Your task to perform on an android device: open app "Facebook Lite" (install if not already installed) Image 0: 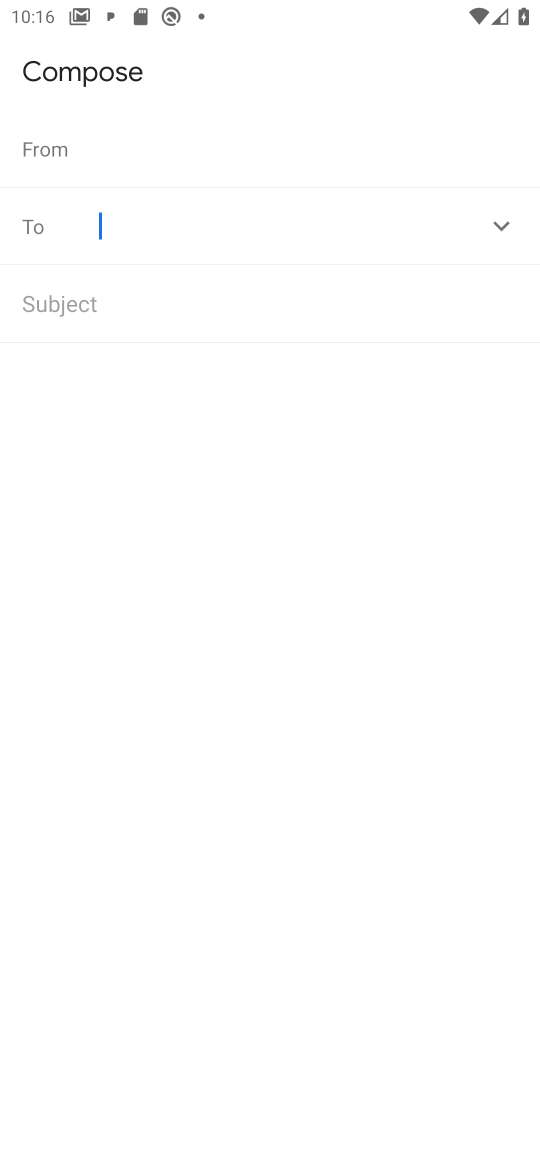
Step 0: press home button
Your task to perform on an android device: open app "Facebook Lite" (install if not already installed) Image 1: 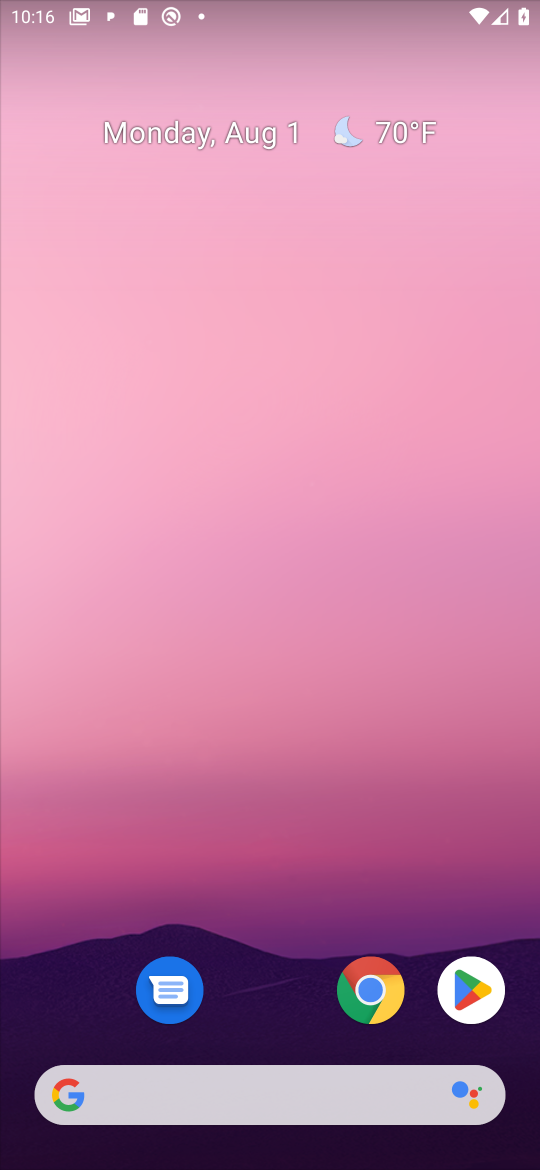
Step 1: click (473, 989)
Your task to perform on an android device: open app "Facebook Lite" (install if not already installed) Image 2: 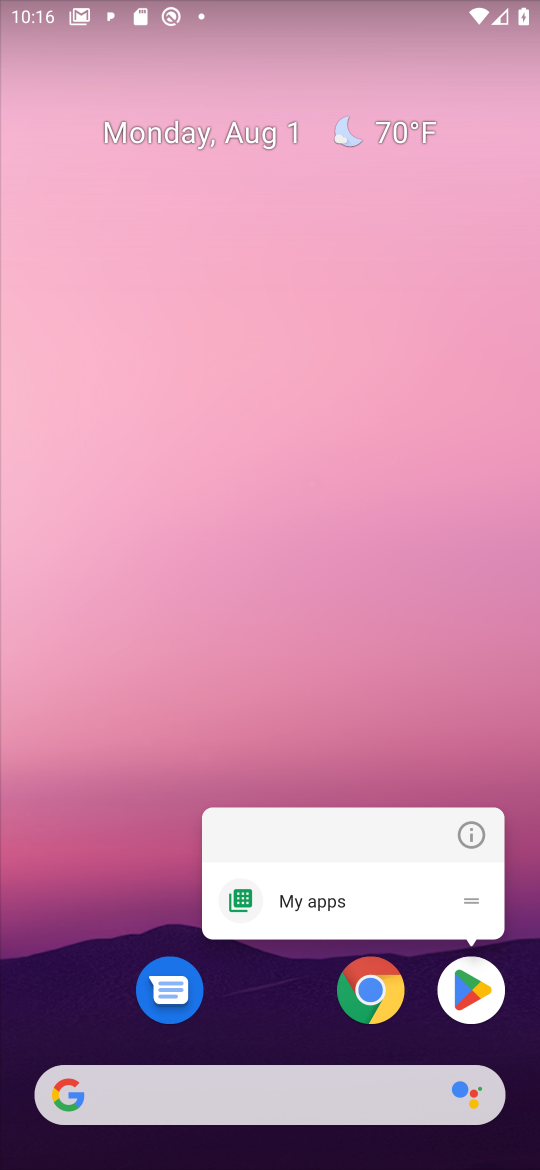
Step 2: click (473, 989)
Your task to perform on an android device: open app "Facebook Lite" (install if not already installed) Image 3: 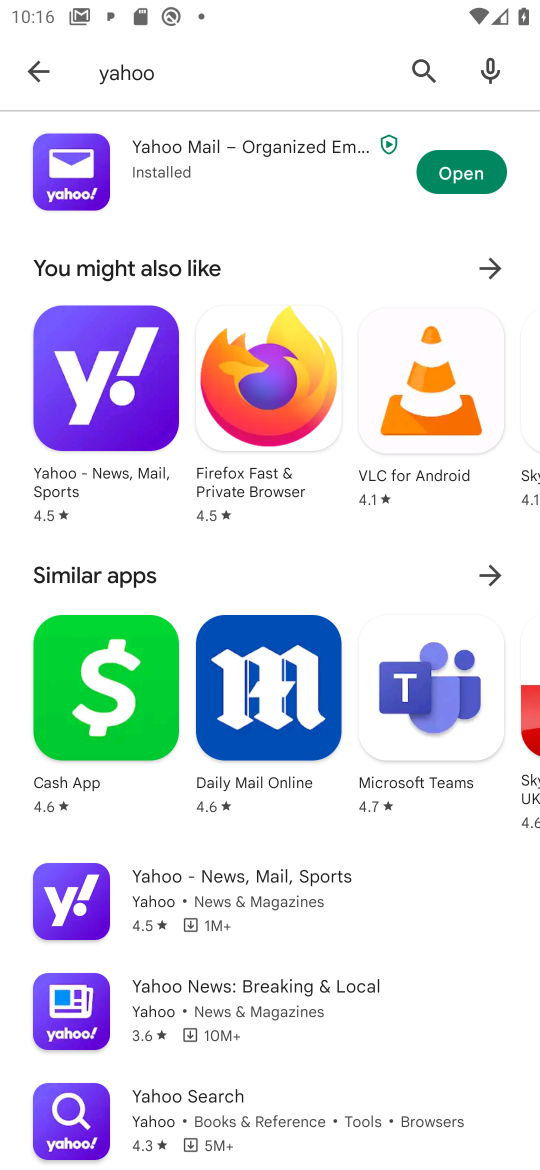
Step 3: click (423, 79)
Your task to perform on an android device: open app "Facebook Lite" (install if not already installed) Image 4: 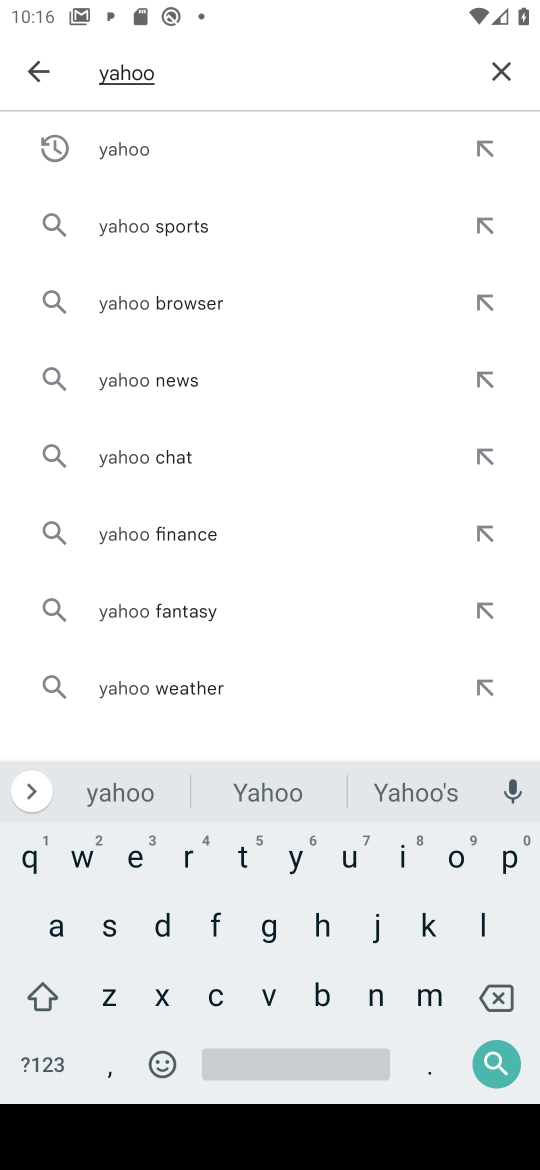
Step 4: click (499, 74)
Your task to perform on an android device: open app "Facebook Lite" (install if not already installed) Image 5: 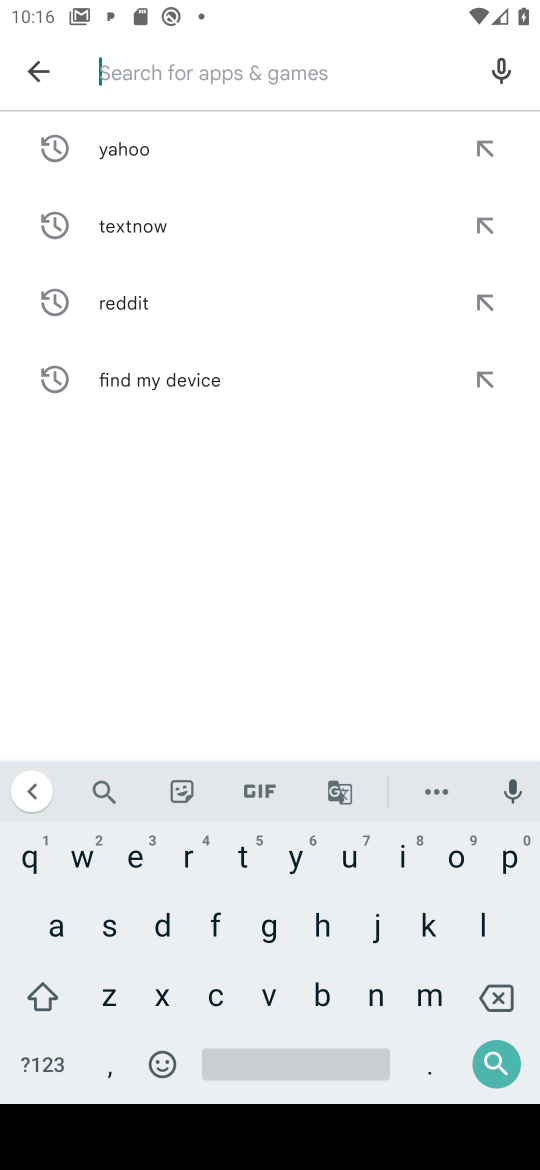
Step 5: click (206, 924)
Your task to perform on an android device: open app "Facebook Lite" (install if not already installed) Image 6: 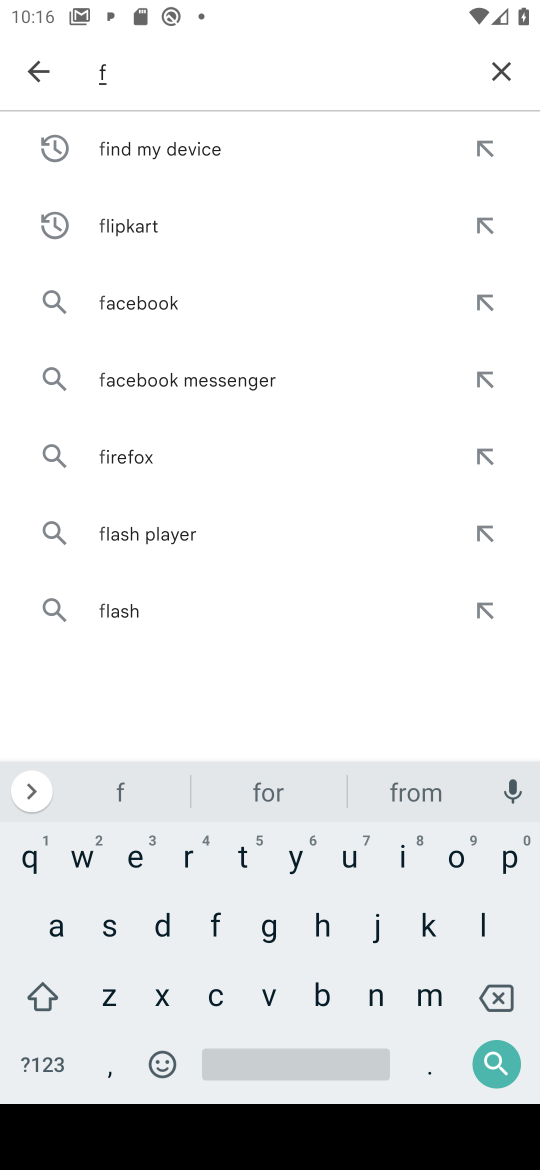
Step 6: click (52, 925)
Your task to perform on an android device: open app "Facebook Lite" (install if not already installed) Image 7: 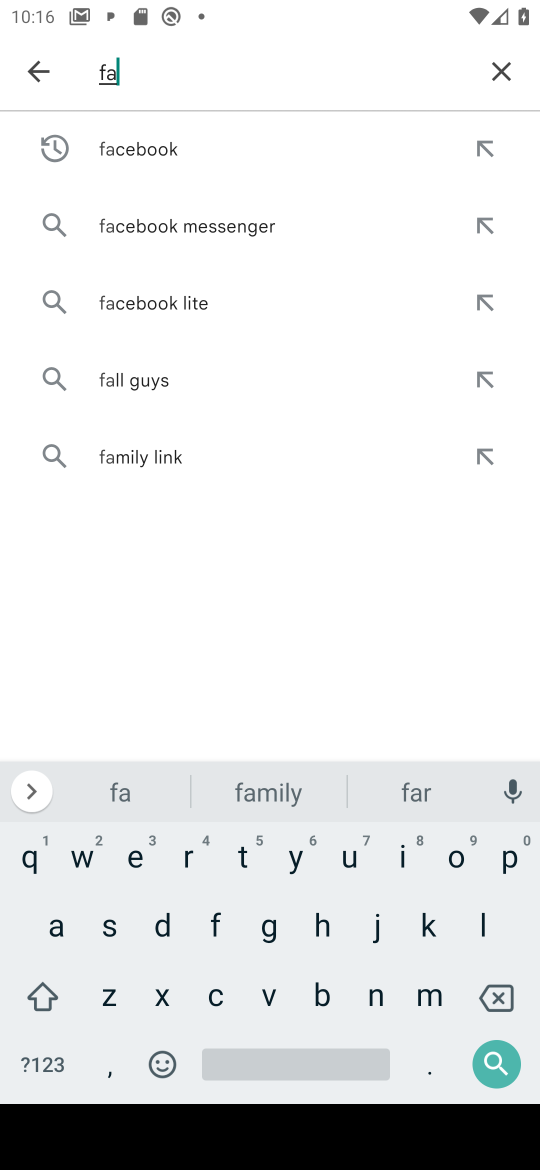
Step 7: click (214, 1003)
Your task to perform on an android device: open app "Facebook Lite" (install if not already installed) Image 8: 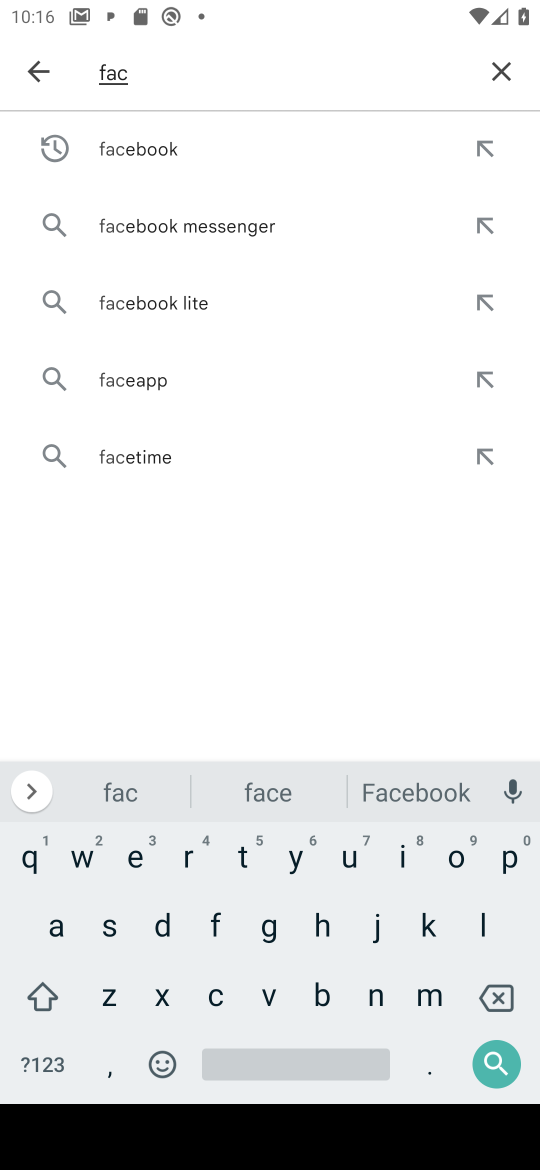
Step 8: click (411, 788)
Your task to perform on an android device: open app "Facebook Lite" (install if not already installed) Image 9: 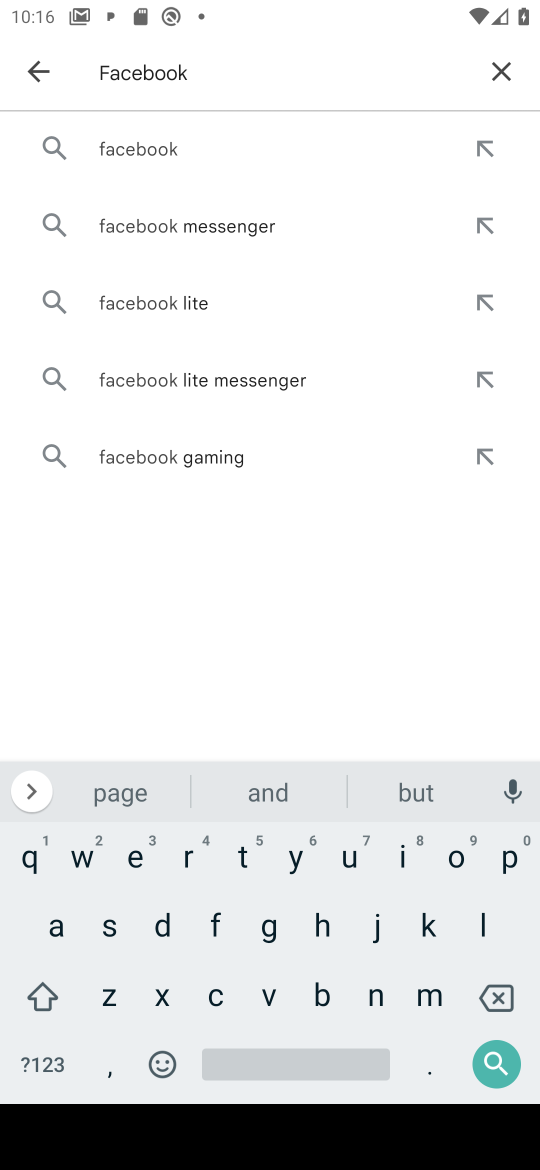
Step 9: click (483, 923)
Your task to perform on an android device: open app "Facebook Lite" (install if not already installed) Image 10: 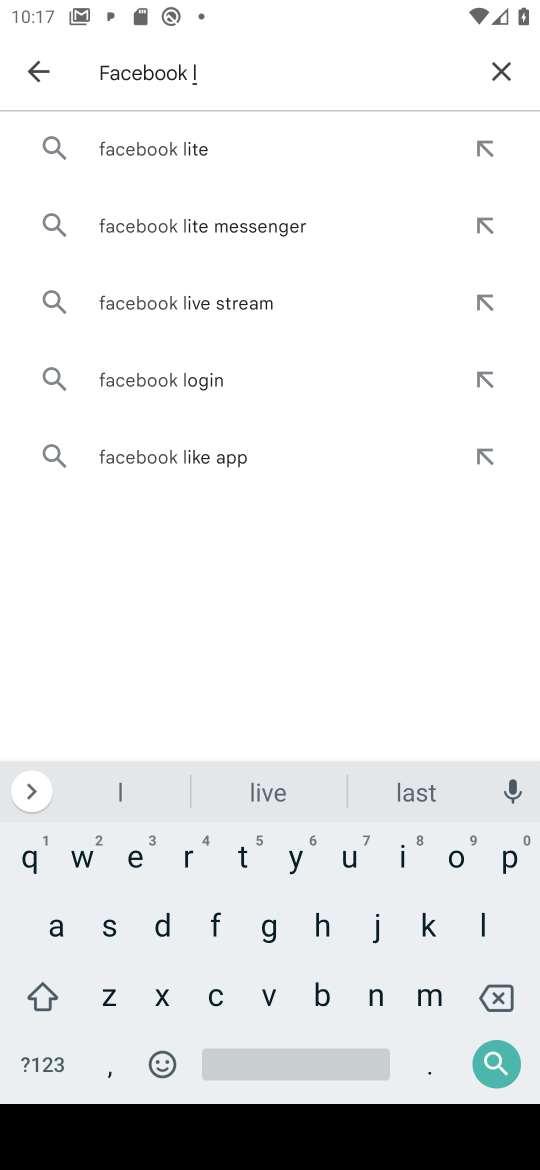
Step 10: click (156, 160)
Your task to perform on an android device: open app "Facebook Lite" (install if not already installed) Image 11: 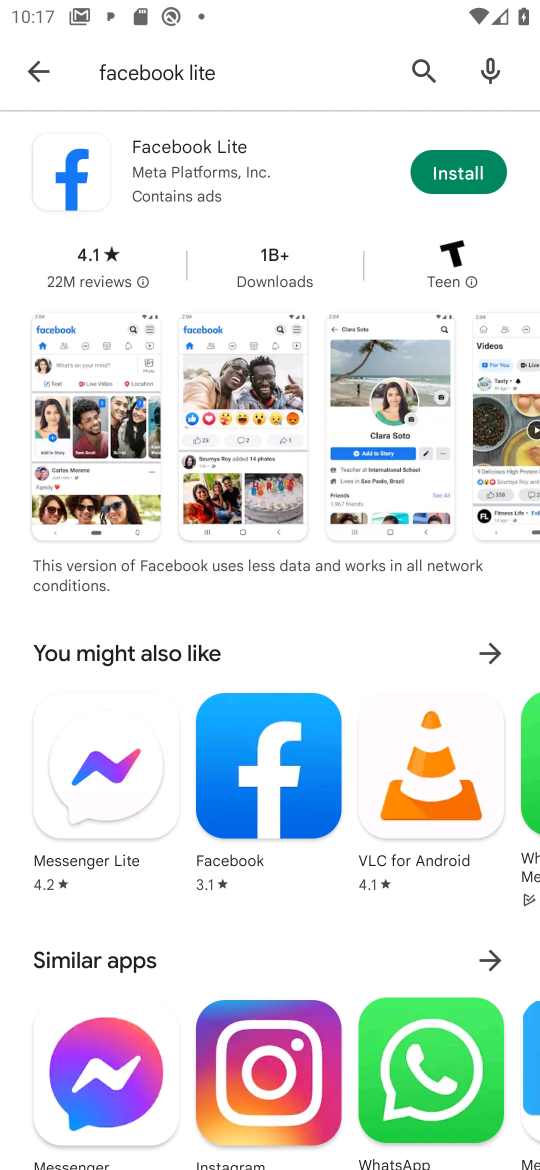
Step 11: click (446, 177)
Your task to perform on an android device: open app "Facebook Lite" (install if not already installed) Image 12: 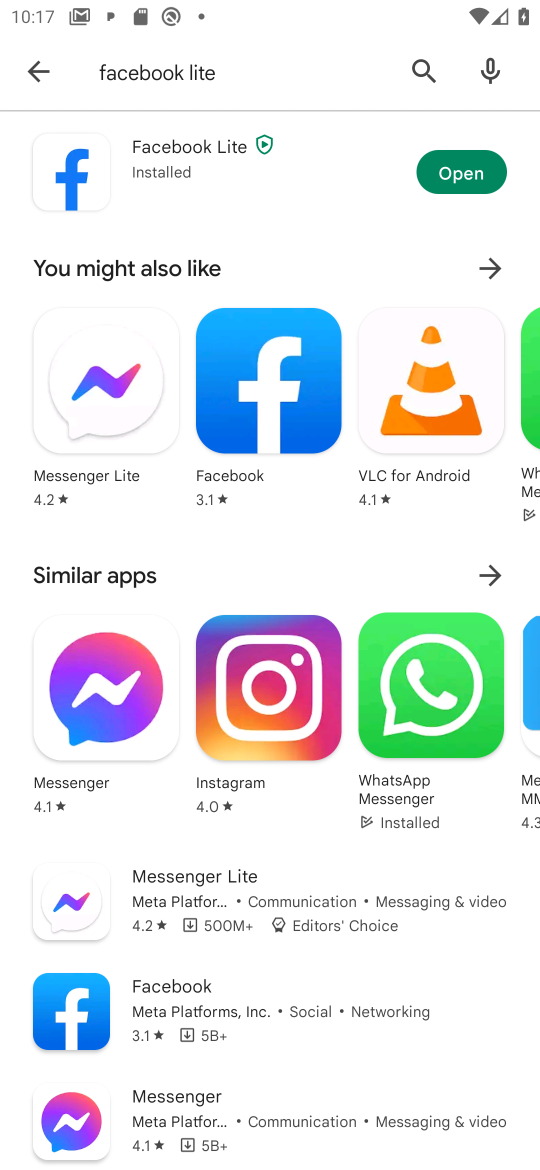
Step 12: click (461, 175)
Your task to perform on an android device: open app "Facebook Lite" (install if not already installed) Image 13: 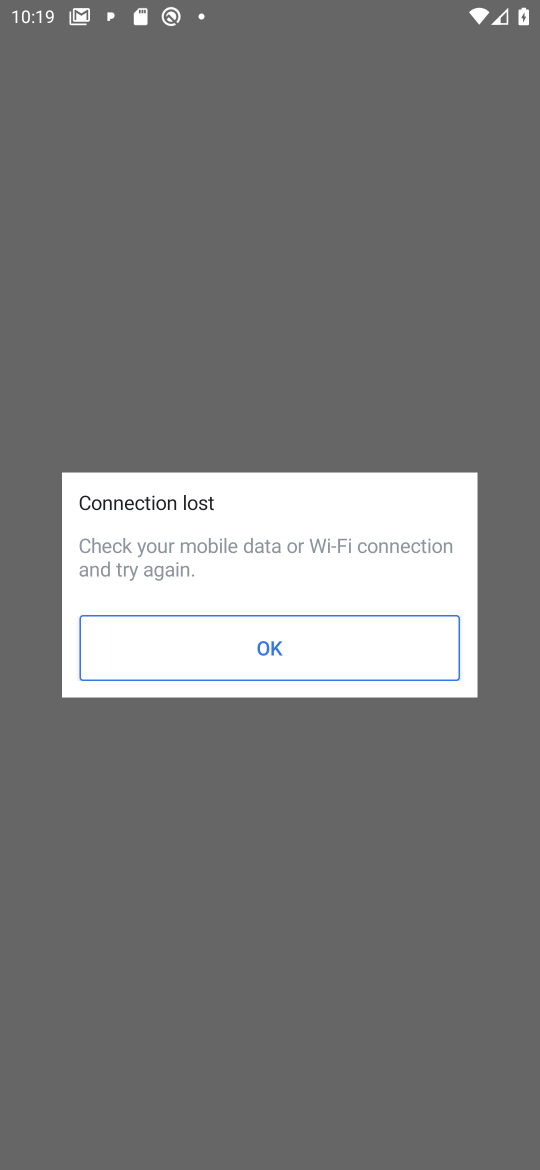
Step 13: task complete